Your task to perform on an android device: Add "macbook pro" to the cart on walmart Image 0: 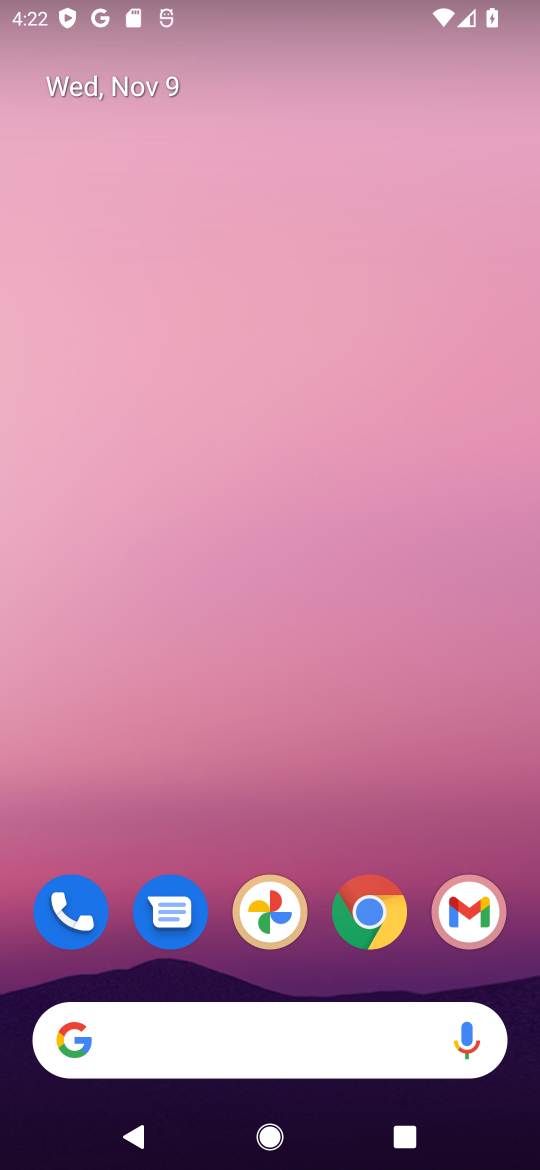
Step 0: click (372, 914)
Your task to perform on an android device: Add "macbook pro" to the cart on walmart Image 1: 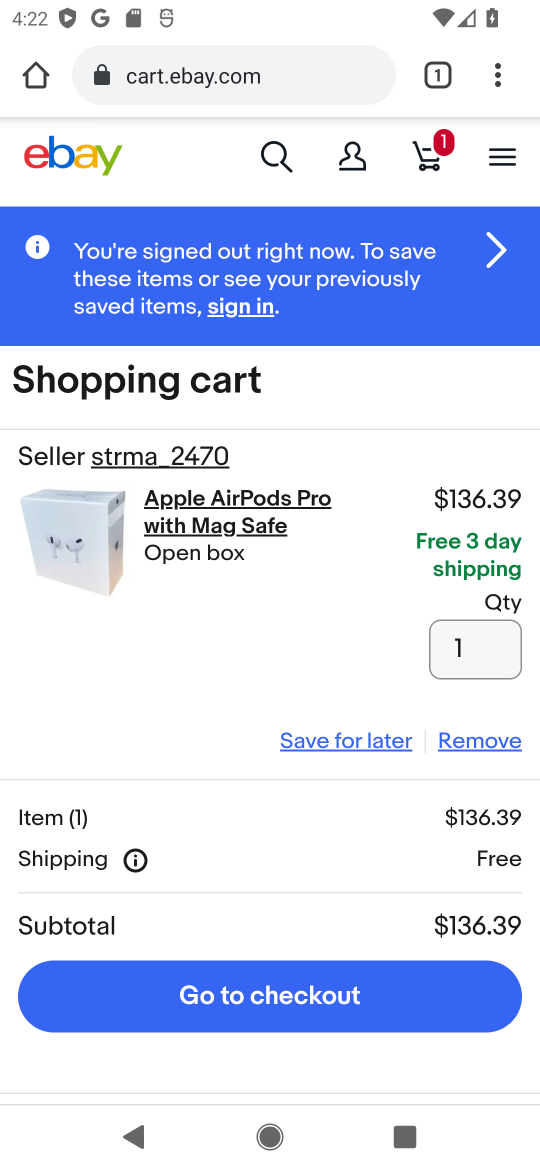
Step 1: click (301, 87)
Your task to perform on an android device: Add "macbook pro" to the cart on walmart Image 2: 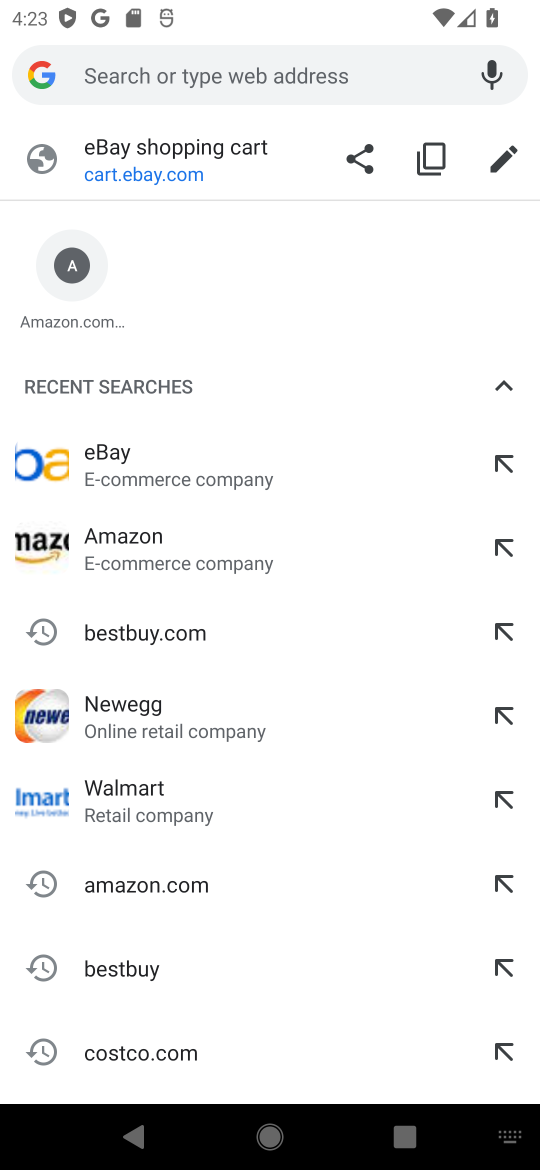
Step 2: type "walmart"
Your task to perform on an android device: Add "macbook pro" to the cart on walmart Image 3: 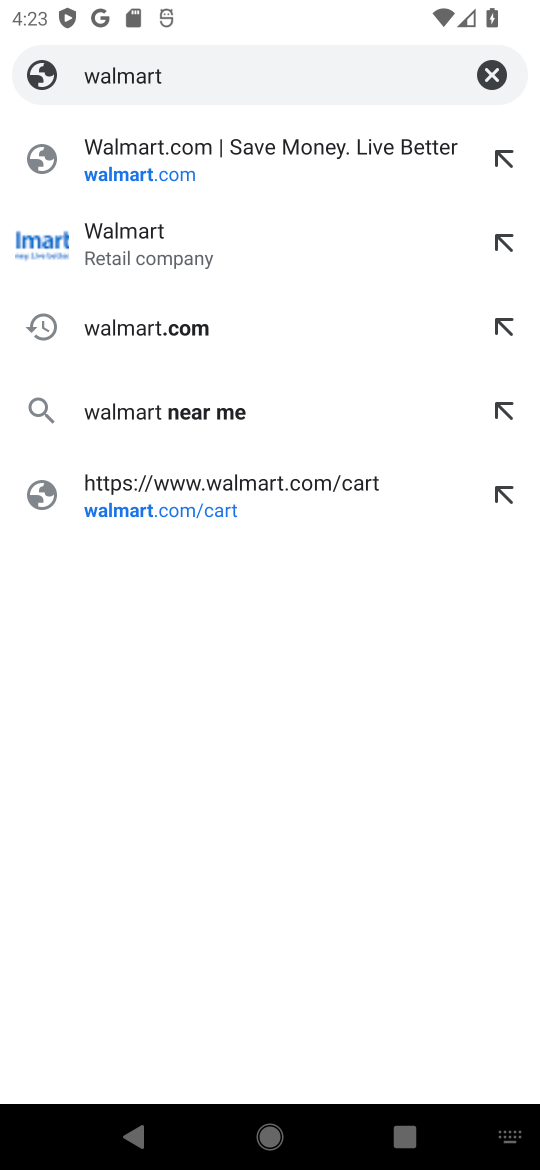
Step 3: click (144, 255)
Your task to perform on an android device: Add "macbook pro" to the cart on walmart Image 4: 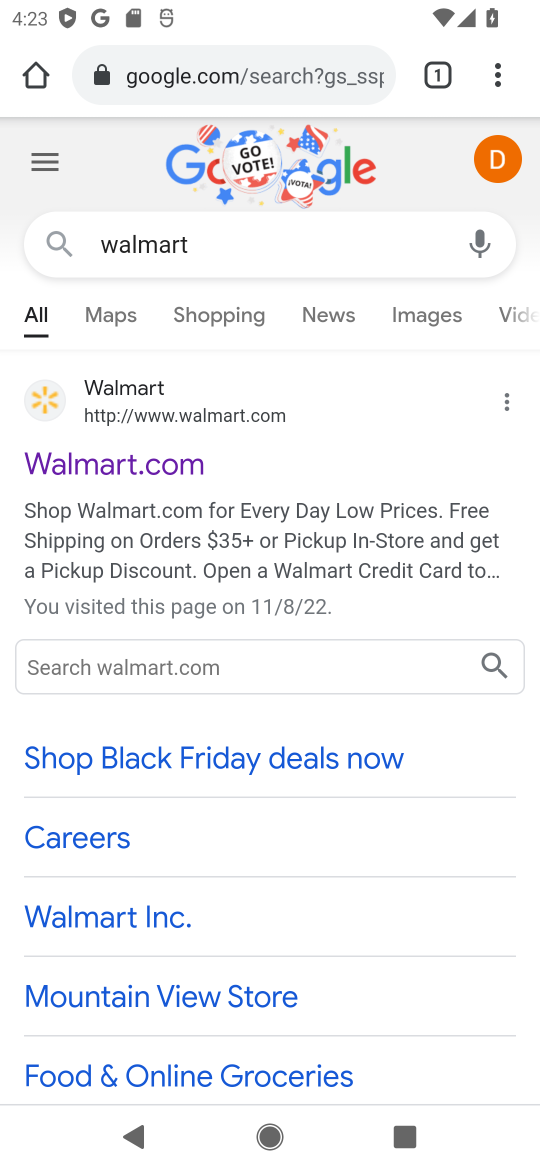
Step 4: click (97, 453)
Your task to perform on an android device: Add "macbook pro" to the cart on walmart Image 5: 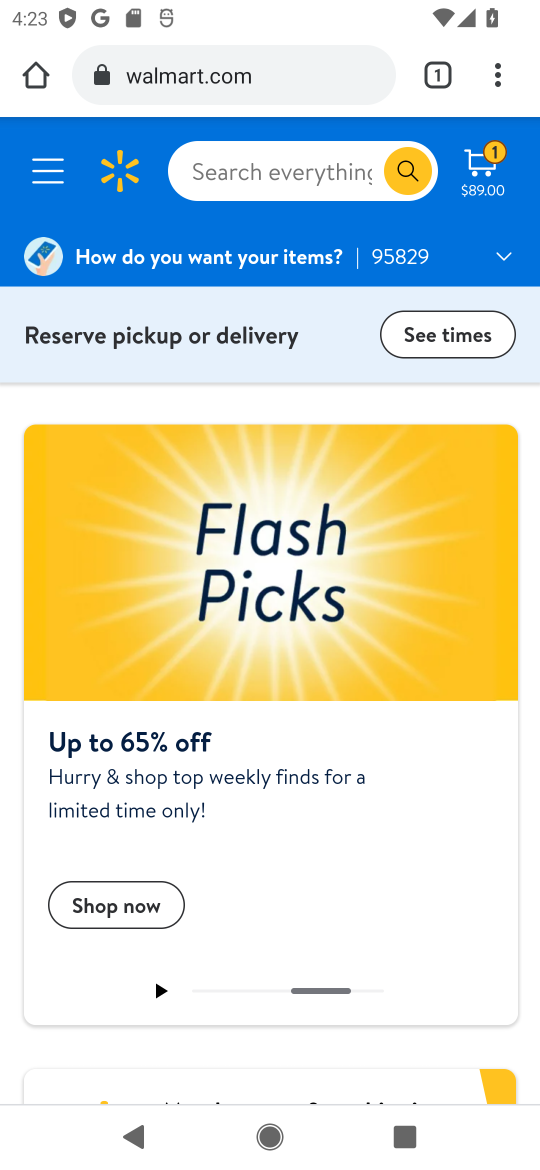
Step 5: click (231, 173)
Your task to perform on an android device: Add "macbook pro" to the cart on walmart Image 6: 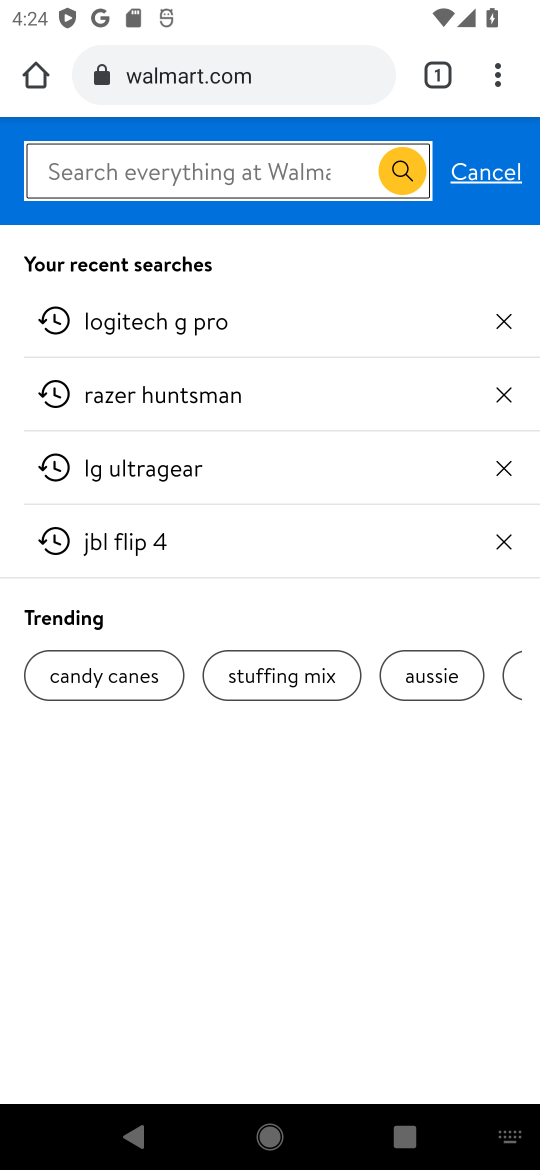
Step 6: type "macbook pro"
Your task to perform on an android device: Add "macbook pro" to the cart on walmart Image 7: 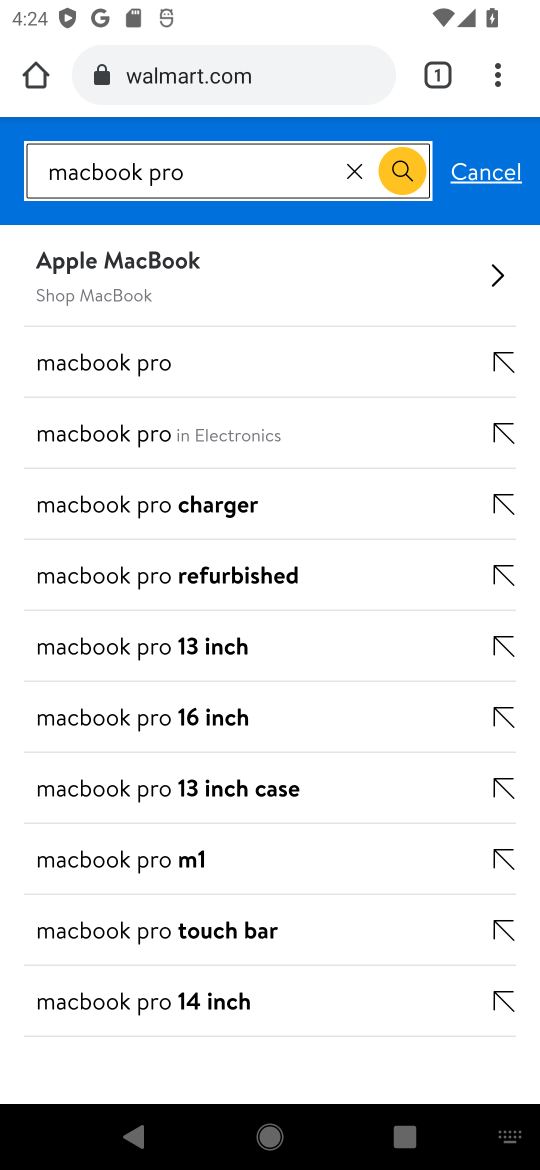
Step 7: click (159, 359)
Your task to perform on an android device: Add "macbook pro" to the cart on walmart Image 8: 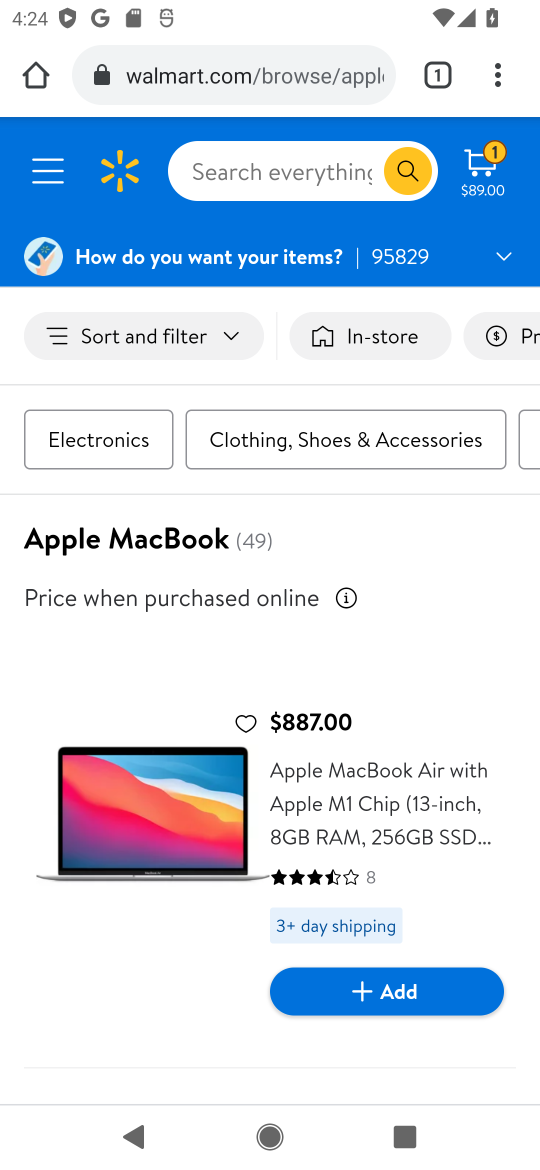
Step 8: click (398, 996)
Your task to perform on an android device: Add "macbook pro" to the cart on walmart Image 9: 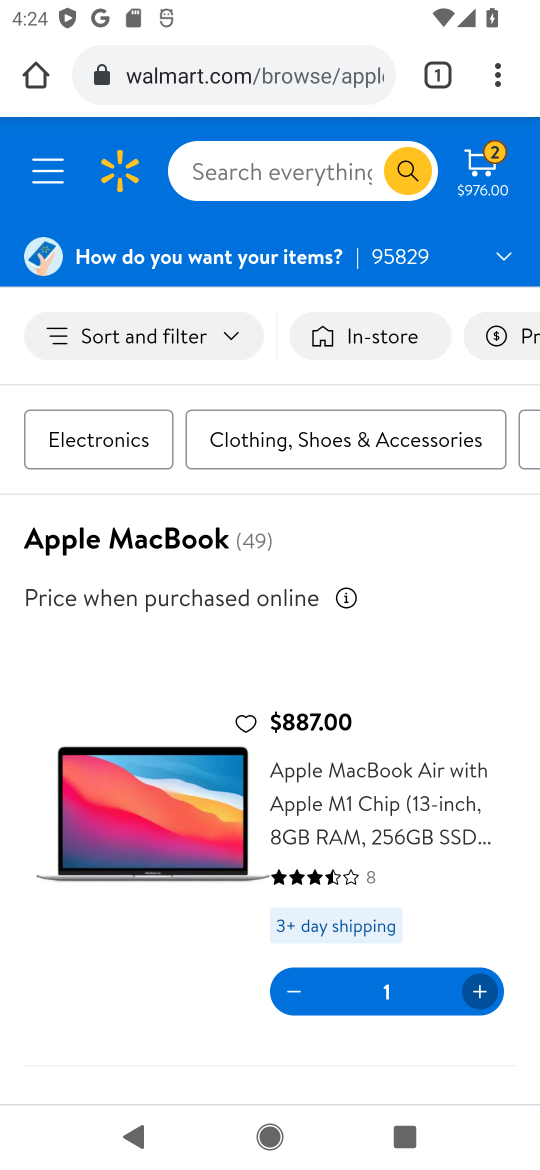
Step 9: task complete